Your task to perform on an android device: turn off javascript in the chrome app Image 0: 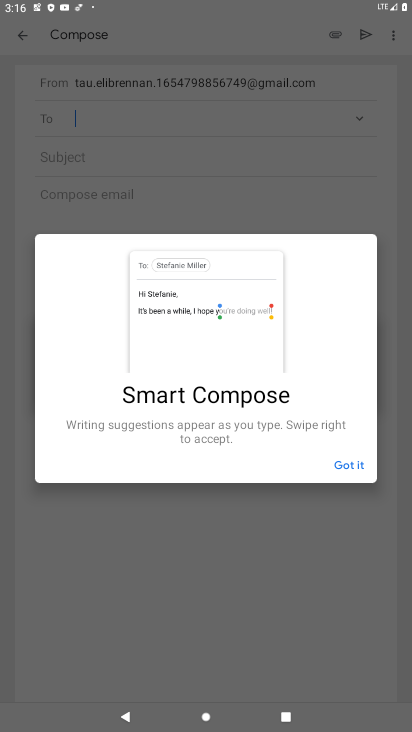
Step 0: press home button
Your task to perform on an android device: turn off javascript in the chrome app Image 1: 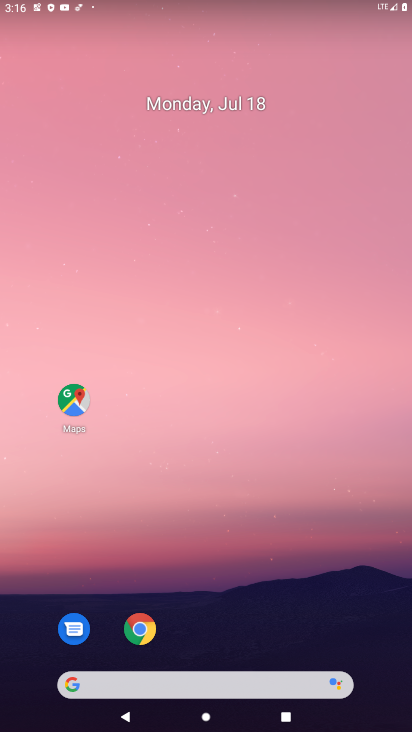
Step 1: drag from (240, 655) to (223, 156)
Your task to perform on an android device: turn off javascript in the chrome app Image 2: 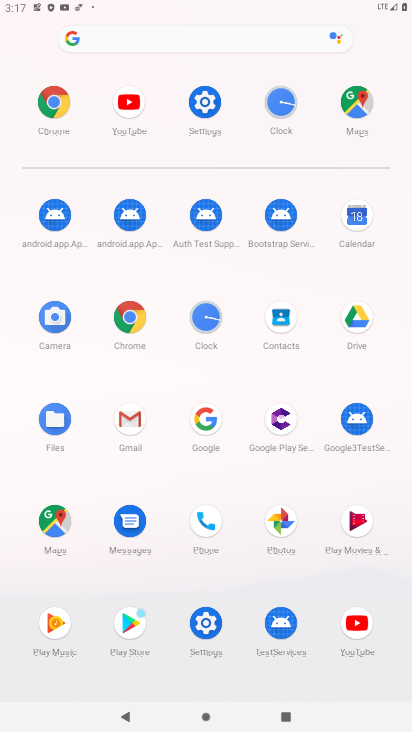
Step 2: click (134, 323)
Your task to perform on an android device: turn off javascript in the chrome app Image 3: 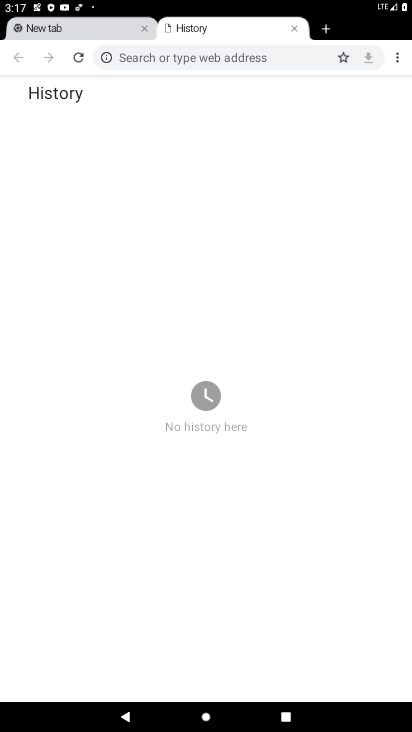
Step 3: click (398, 52)
Your task to perform on an android device: turn off javascript in the chrome app Image 4: 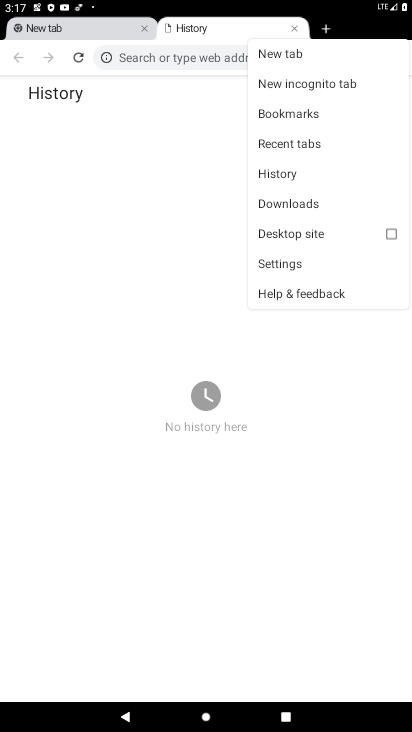
Step 4: click (292, 267)
Your task to perform on an android device: turn off javascript in the chrome app Image 5: 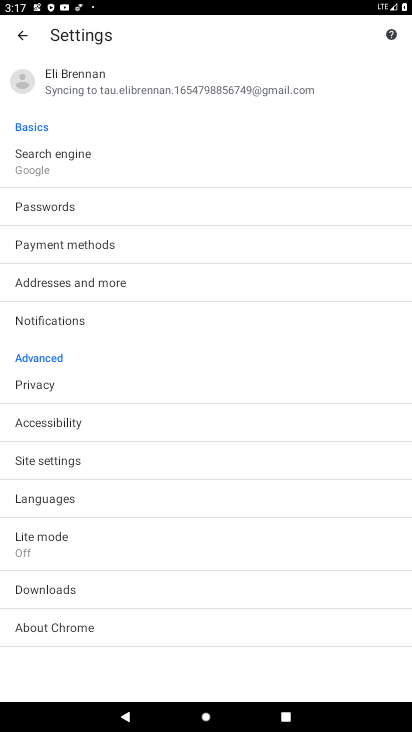
Step 5: click (83, 466)
Your task to perform on an android device: turn off javascript in the chrome app Image 6: 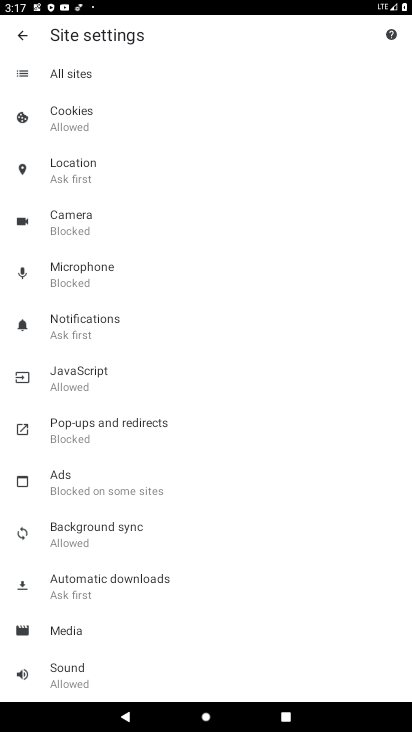
Step 6: click (93, 375)
Your task to perform on an android device: turn off javascript in the chrome app Image 7: 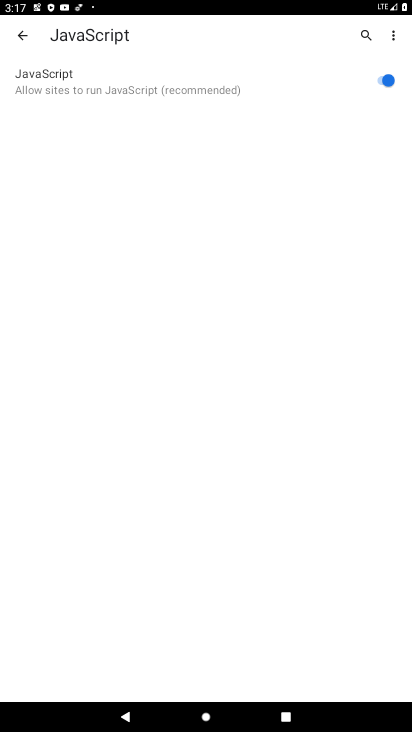
Step 7: click (365, 73)
Your task to perform on an android device: turn off javascript in the chrome app Image 8: 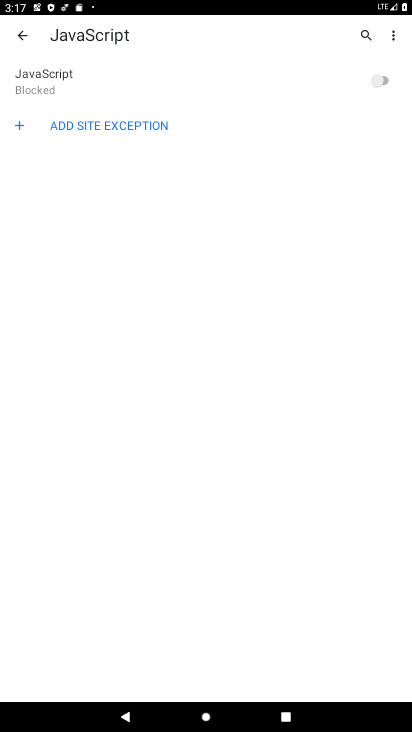
Step 8: task complete